Your task to perform on an android device: turn on wifi Image 0: 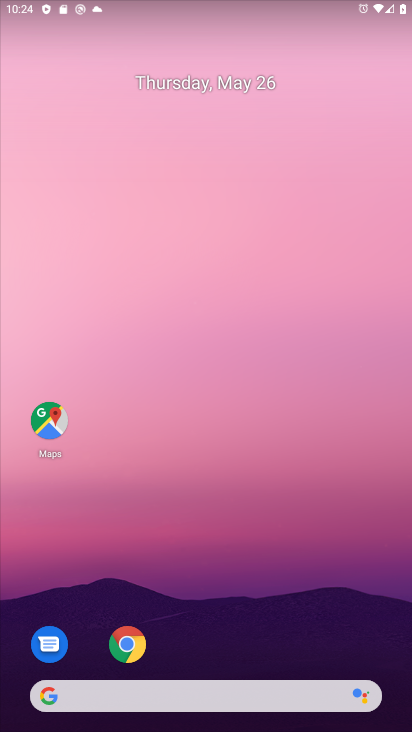
Step 0: drag from (223, 646) to (226, 262)
Your task to perform on an android device: turn on wifi Image 1: 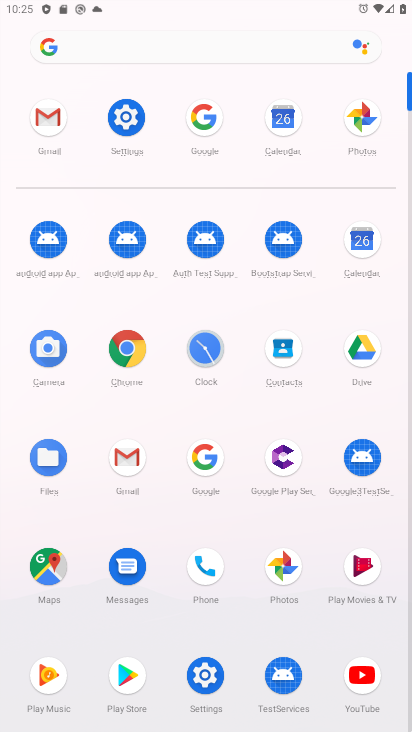
Step 1: click (113, 126)
Your task to perform on an android device: turn on wifi Image 2: 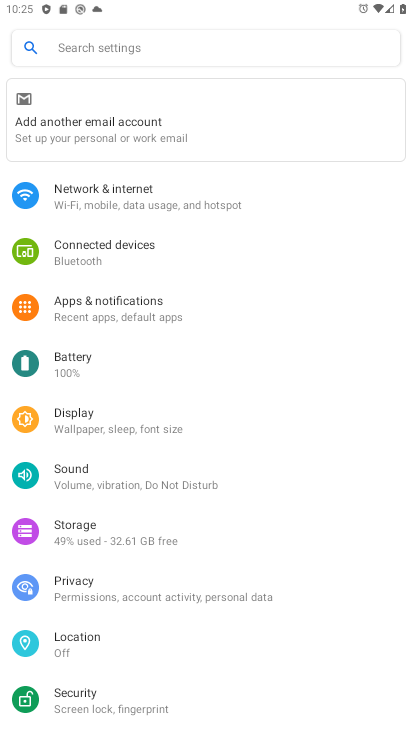
Step 2: click (130, 207)
Your task to perform on an android device: turn on wifi Image 3: 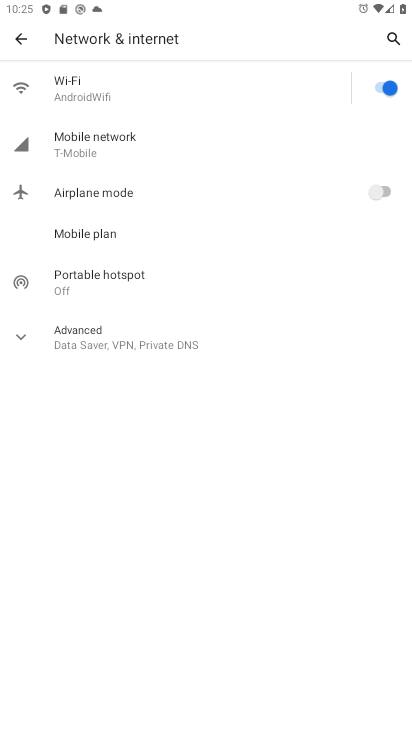
Step 3: task complete